Your task to perform on an android device: Go to ESPN.com Image 0: 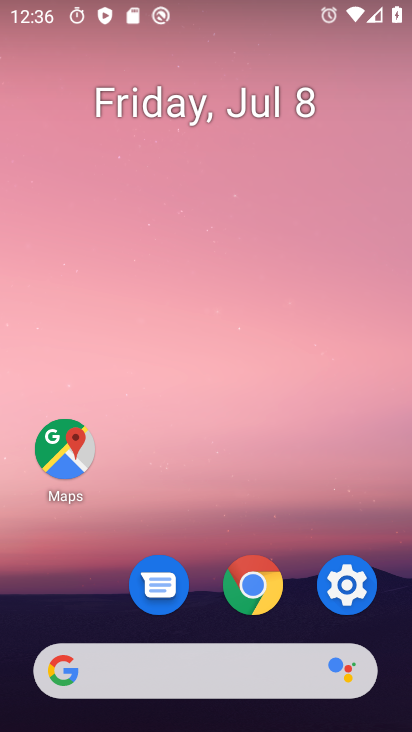
Step 0: click (237, 592)
Your task to perform on an android device: Go to ESPN.com Image 1: 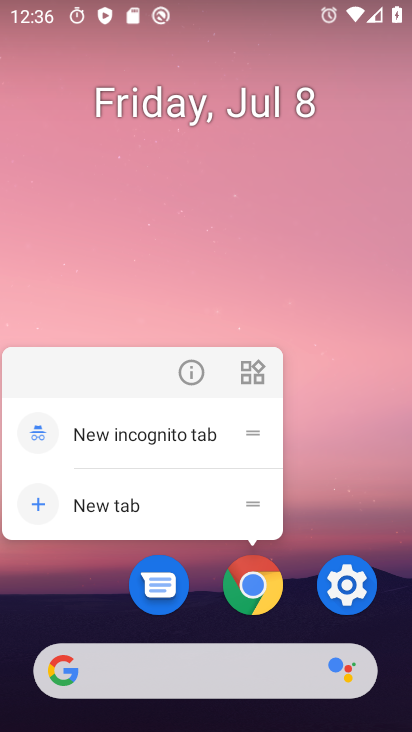
Step 1: click (243, 587)
Your task to perform on an android device: Go to ESPN.com Image 2: 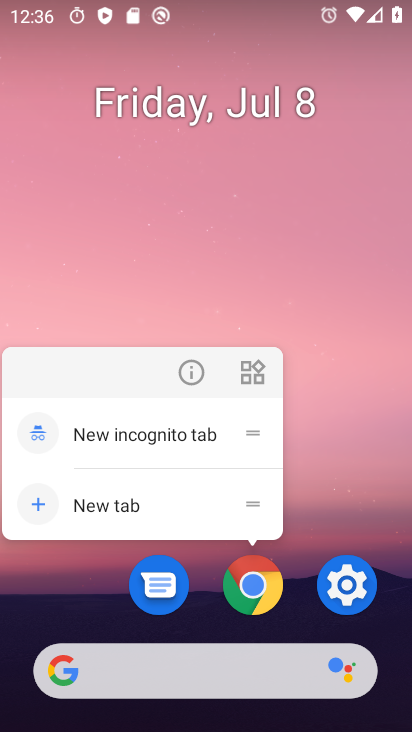
Step 2: click (252, 581)
Your task to perform on an android device: Go to ESPN.com Image 3: 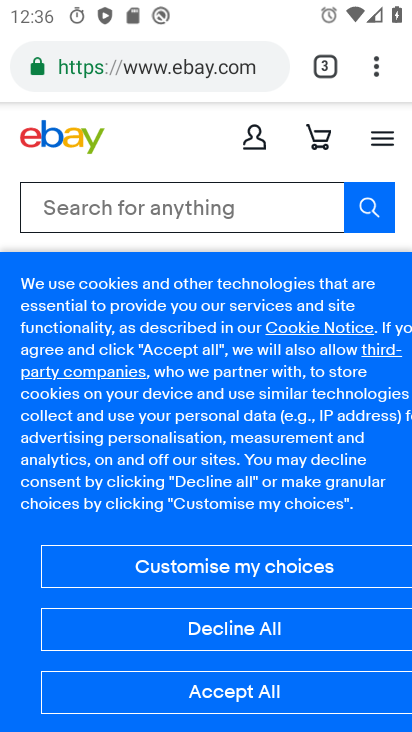
Step 3: click (254, 700)
Your task to perform on an android device: Go to ESPN.com Image 4: 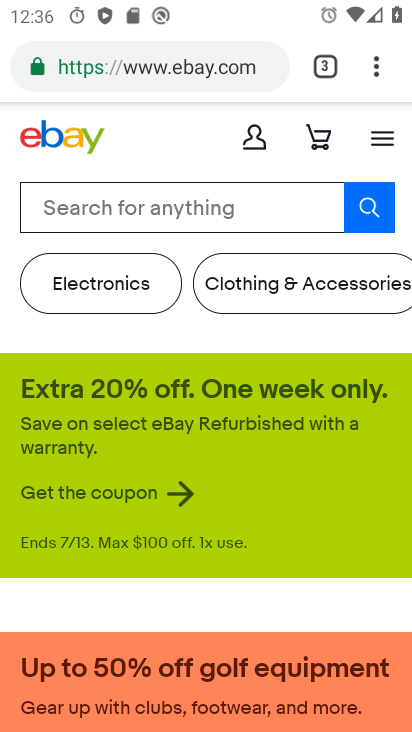
Step 4: click (321, 69)
Your task to perform on an android device: Go to ESPN.com Image 5: 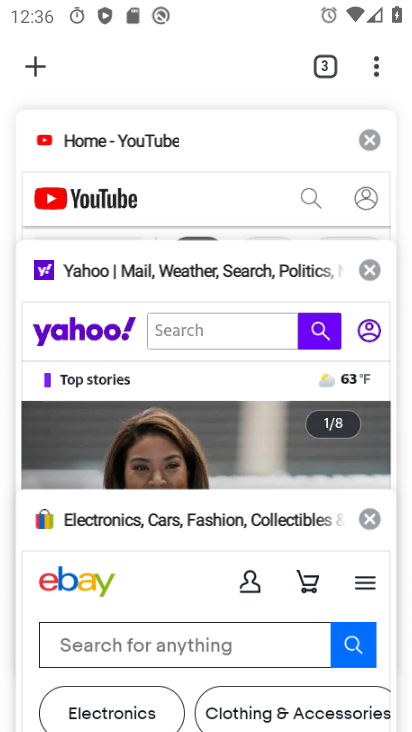
Step 5: click (34, 69)
Your task to perform on an android device: Go to ESPN.com Image 6: 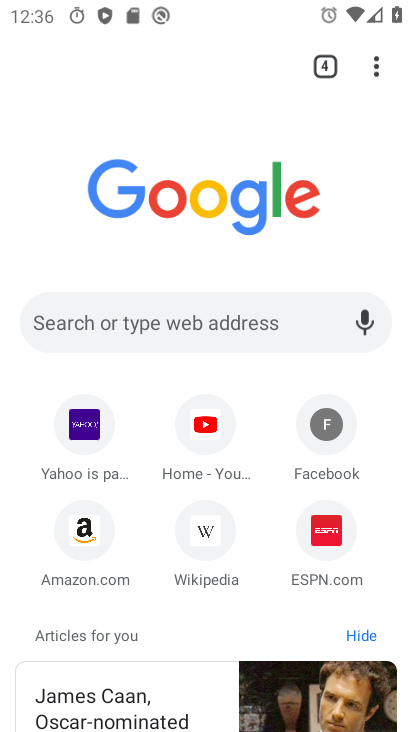
Step 6: click (323, 536)
Your task to perform on an android device: Go to ESPN.com Image 7: 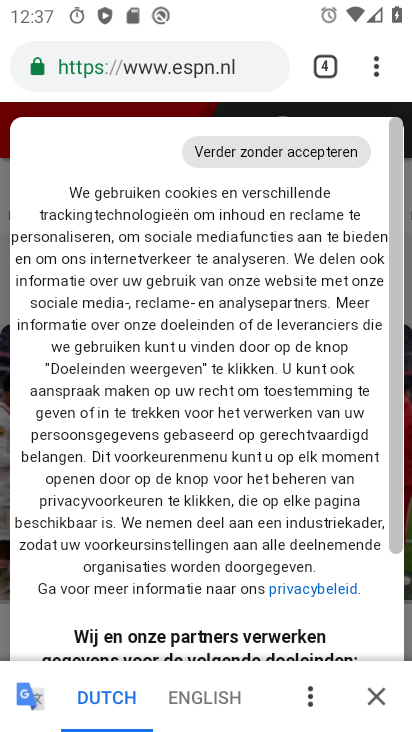
Step 7: drag from (179, 563) to (340, 196)
Your task to perform on an android device: Go to ESPN.com Image 8: 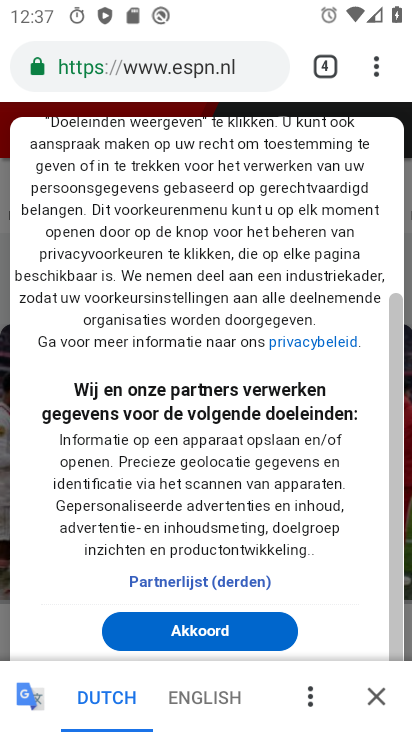
Step 8: click (184, 630)
Your task to perform on an android device: Go to ESPN.com Image 9: 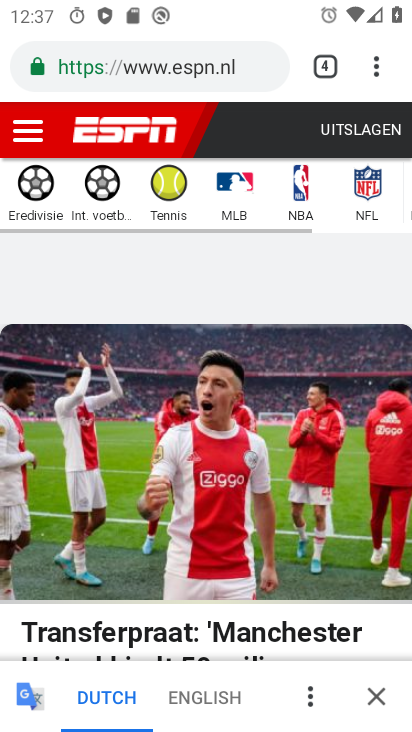
Step 9: task complete